Your task to perform on an android device: turn on bluetooth scan Image 0: 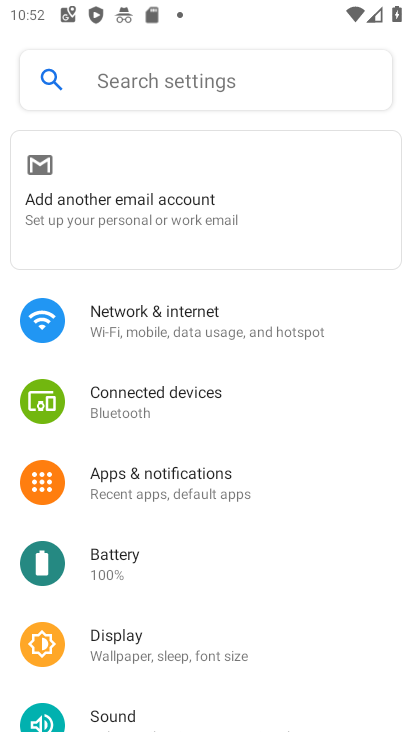
Step 0: drag from (258, 610) to (193, 0)
Your task to perform on an android device: turn on bluetooth scan Image 1: 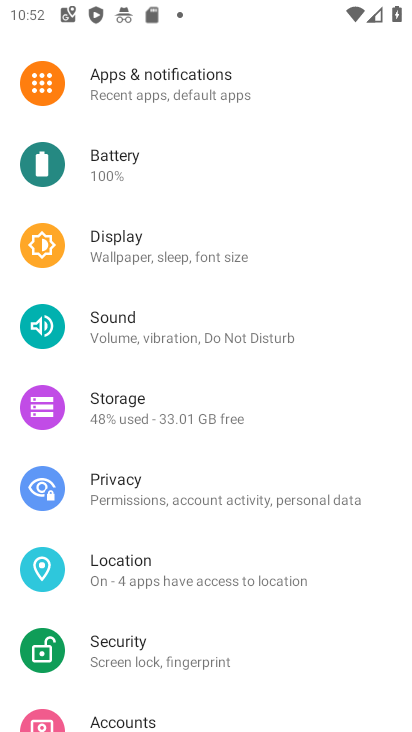
Step 1: click (163, 563)
Your task to perform on an android device: turn on bluetooth scan Image 2: 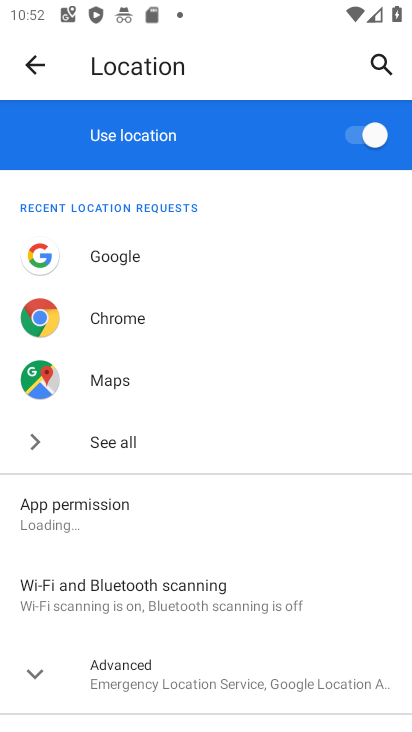
Step 2: click (141, 601)
Your task to perform on an android device: turn on bluetooth scan Image 3: 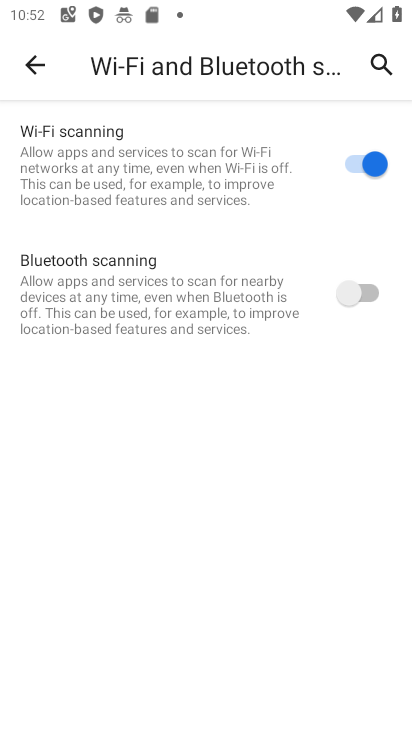
Step 3: click (364, 281)
Your task to perform on an android device: turn on bluetooth scan Image 4: 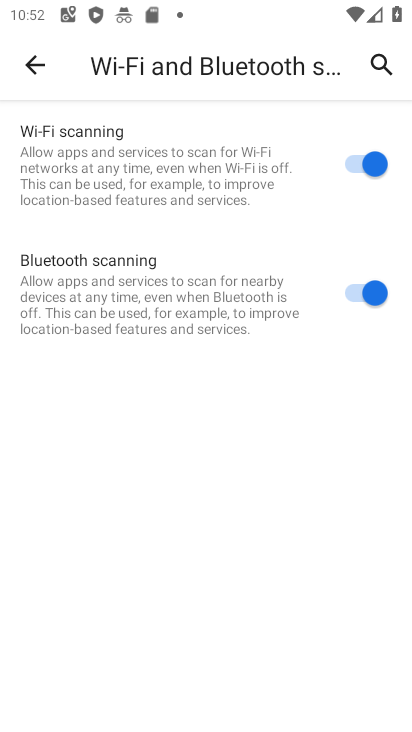
Step 4: task complete